Your task to perform on an android device: change alarm snooze length Image 0: 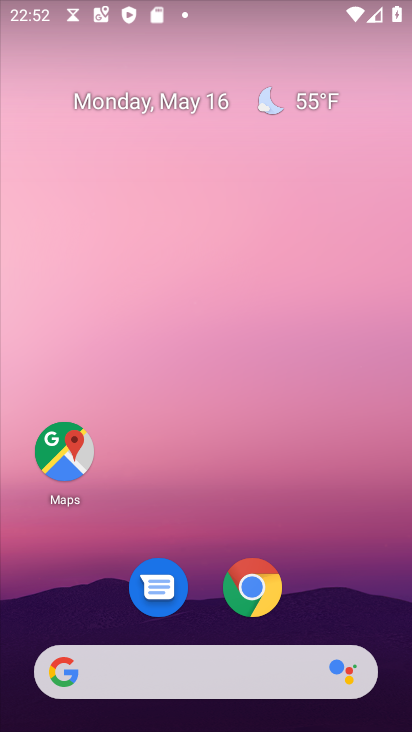
Step 0: drag from (338, 554) to (310, 12)
Your task to perform on an android device: change alarm snooze length Image 1: 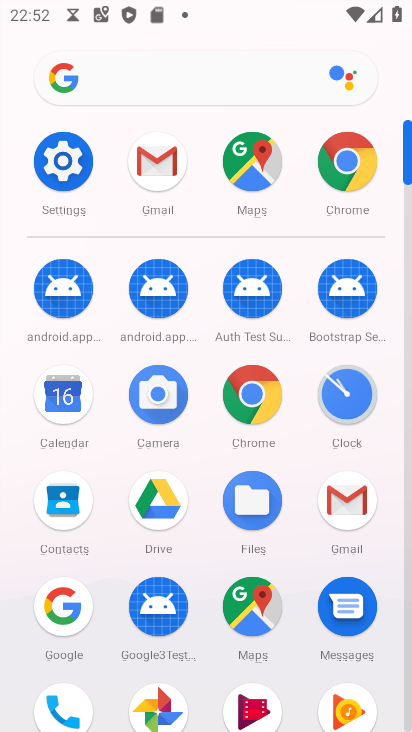
Step 1: drag from (14, 562) to (23, 179)
Your task to perform on an android device: change alarm snooze length Image 2: 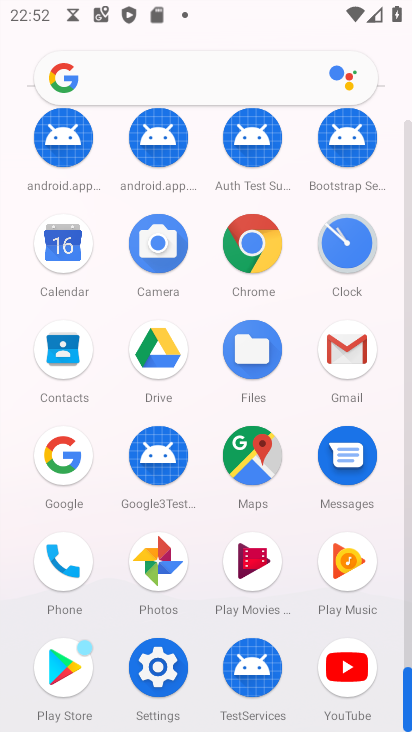
Step 2: drag from (16, 600) to (27, 316)
Your task to perform on an android device: change alarm snooze length Image 3: 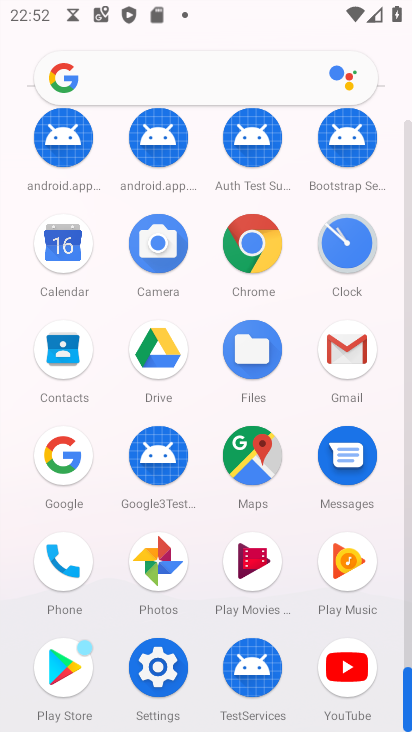
Step 3: click (347, 241)
Your task to perform on an android device: change alarm snooze length Image 4: 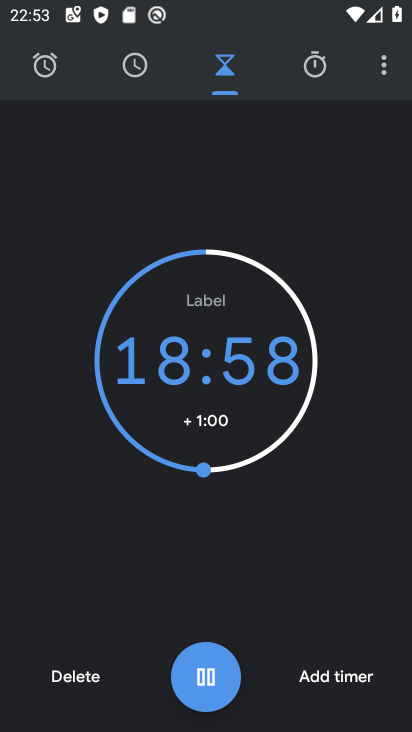
Step 4: drag from (387, 58) to (320, 129)
Your task to perform on an android device: change alarm snooze length Image 5: 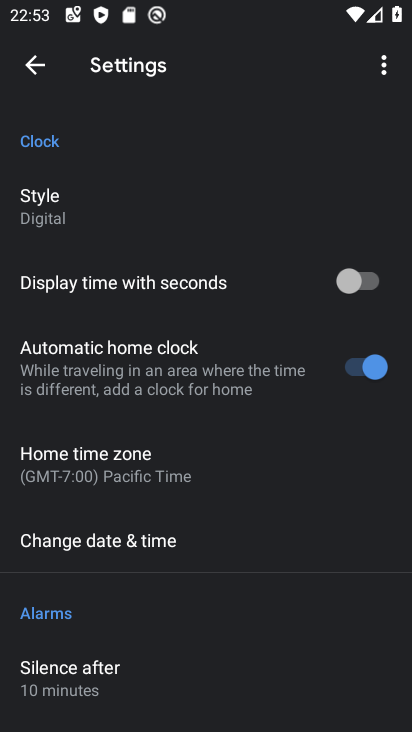
Step 5: drag from (211, 561) to (211, 170)
Your task to perform on an android device: change alarm snooze length Image 6: 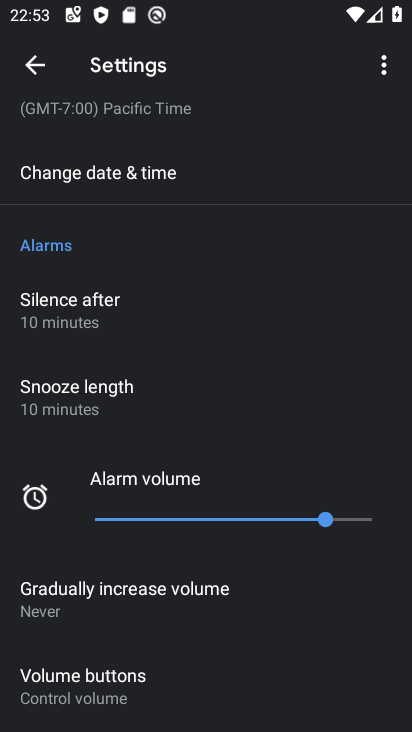
Step 6: click (145, 397)
Your task to perform on an android device: change alarm snooze length Image 7: 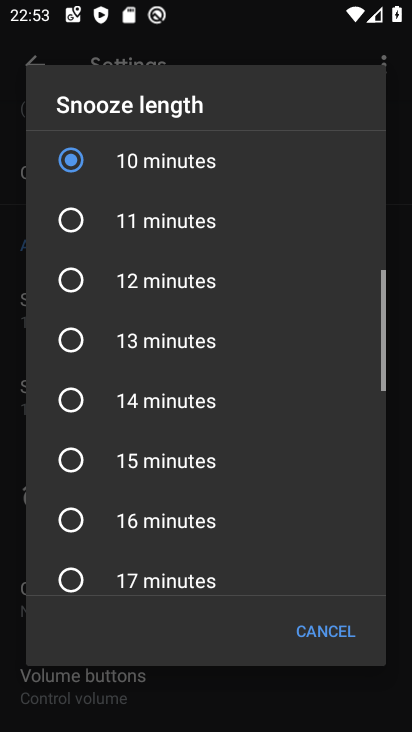
Step 7: click (145, 284)
Your task to perform on an android device: change alarm snooze length Image 8: 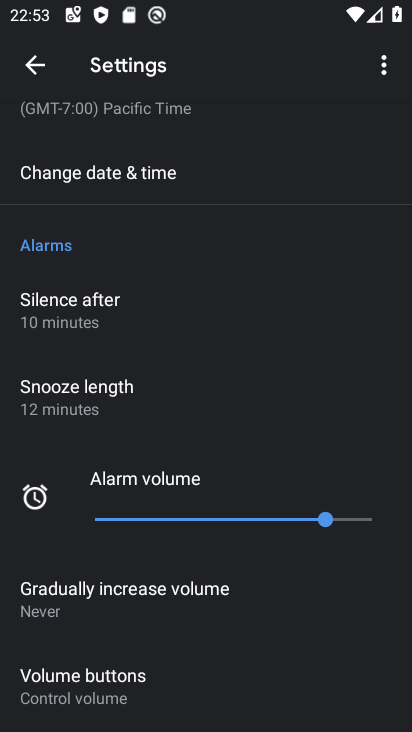
Step 8: task complete